Your task to perform on an android device: What's the weather? Image 0: 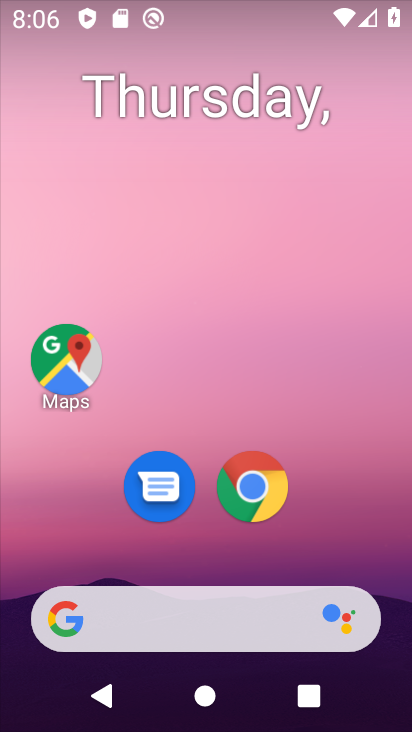
Step 0: drag from (217, 566) to (217, 172)
Your task to perform on an android device: What's the weather? Image 1: 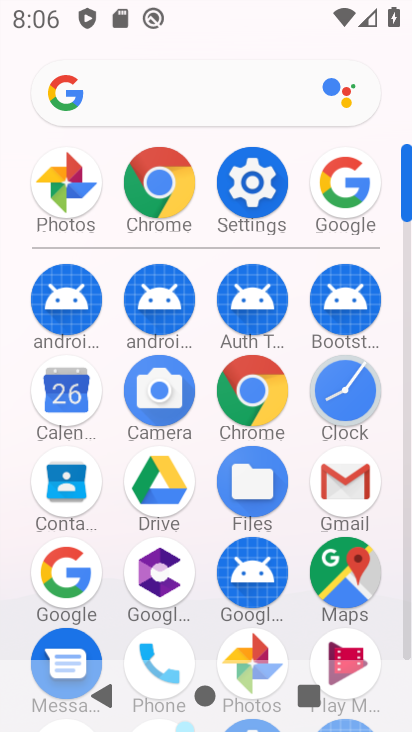
Step 1: drag from (205, 455) to (228, 147)
Your task to perform on an android device: What's the weather? Image 2: 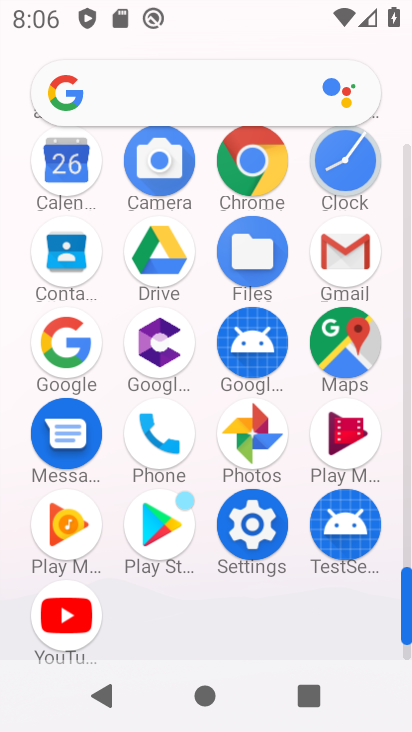
Step 2: click (65, 364)
Your task to perform on an android device: What's the weather? Image 3: 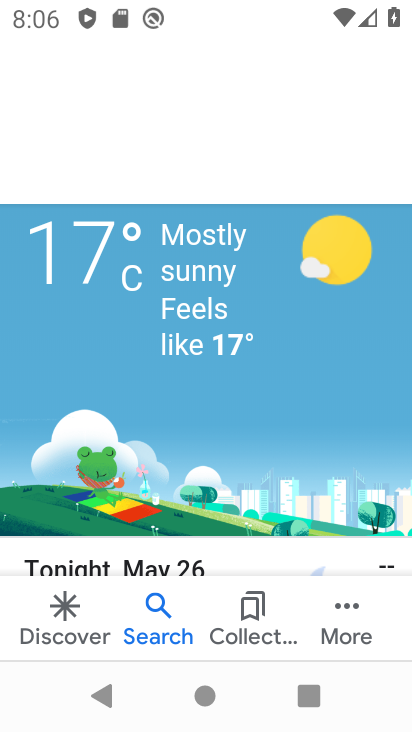
Step 3: task complete